Your task to perform on an android device: toggle notifications settings in the gmail app Image 0: 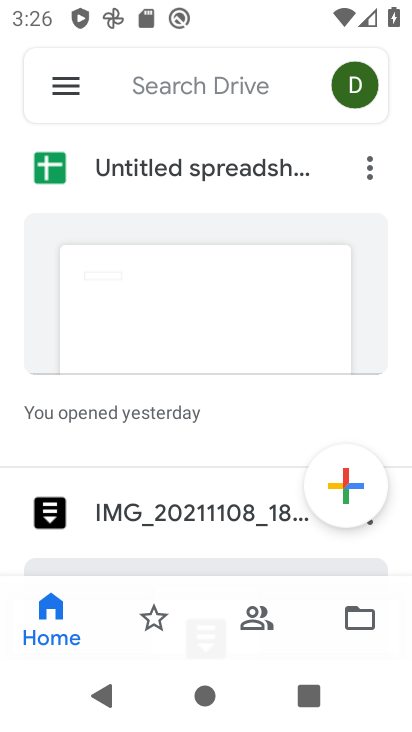
Step 0: press home button
Your task to perform on an android device: toggle notifications settings in the gmail app Image 1: 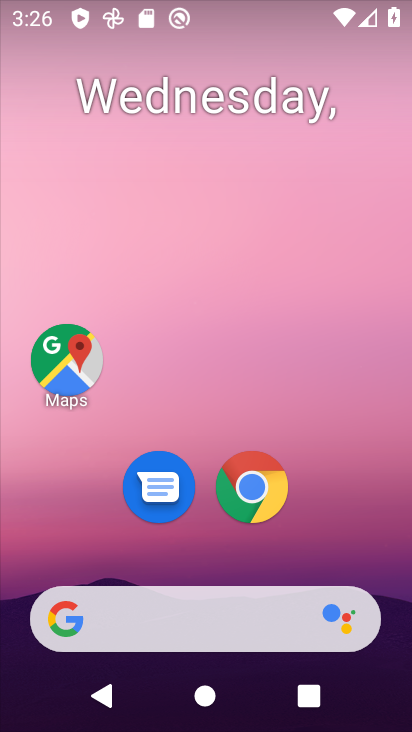
Step 1: drag from (338, 506) to (331, 148)
Your task to perform on an android device: toggle notifications settings in the gmail app Image 2: 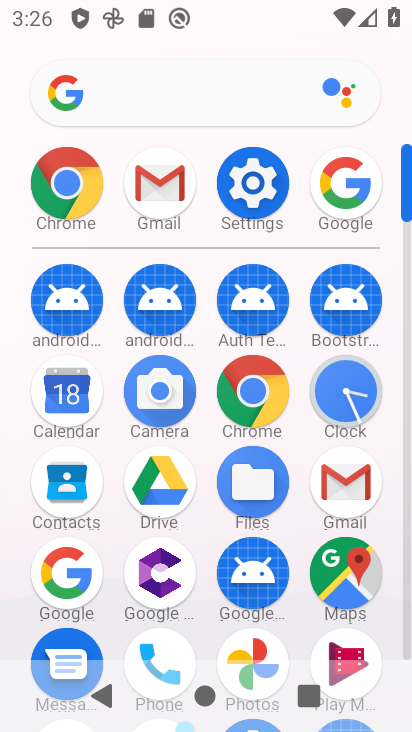
Step 2: click (365, 491)
Your task to perform on an android device: toggle notifications settings in the gmail app Image 3: 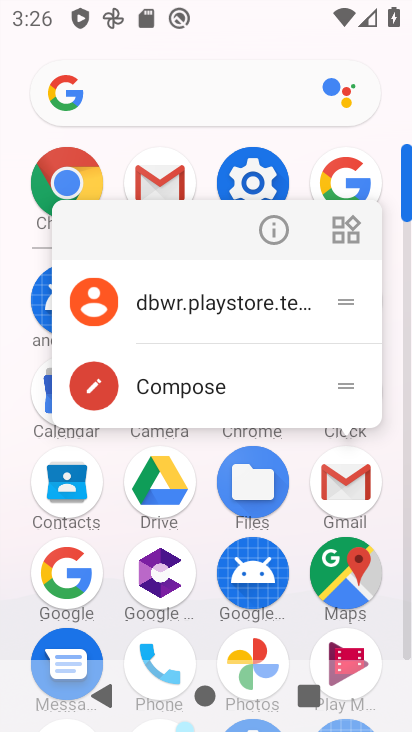
Step 3: click (365, 491)
Your task to perform on an android device: toggle notifications settings in the gmail app Image 4: 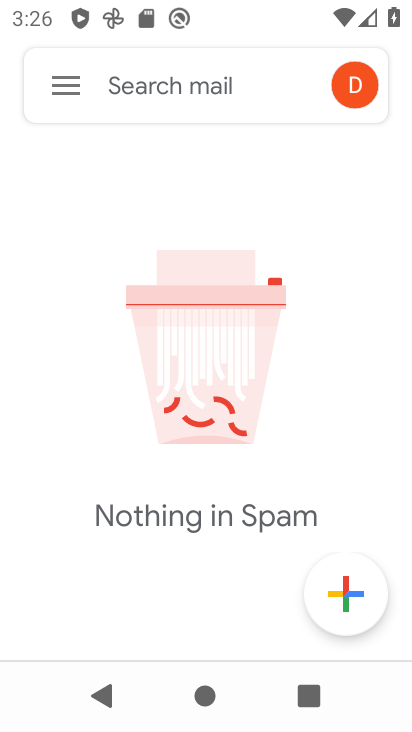
Step 4: click (57, 96)
Your task to perform on an android device: toggle notifications settings in the gmail app Image 5: 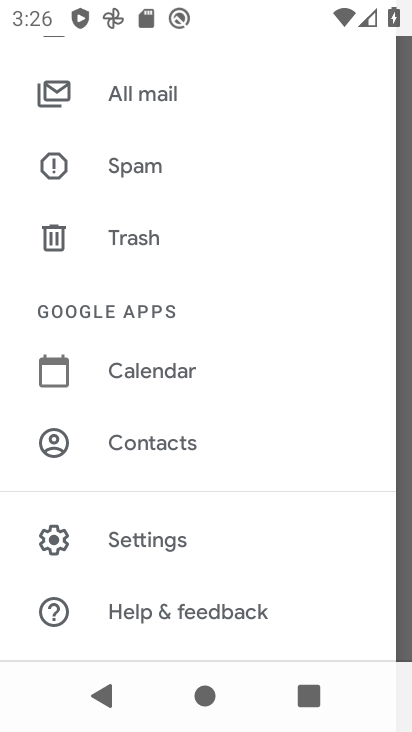
Step 5: drag from (298, 318) to (308, 386)
Your task to perform on an android device: toggle notifications settings in the gmail app Image 6: 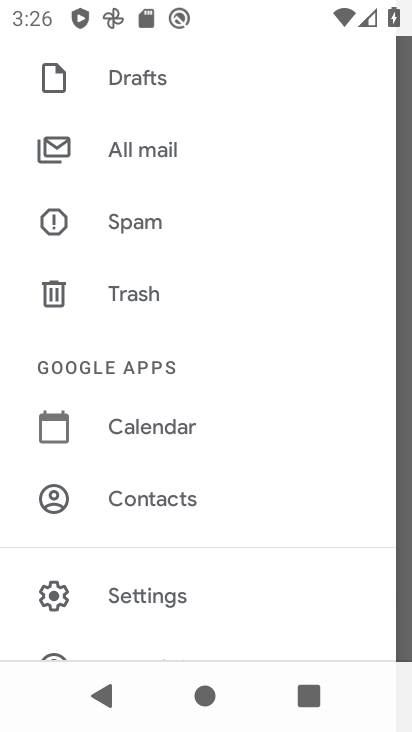
Step 6: drag from (311, 280) to (303, 372)
Your task to perform on an android device: toggle notifications settings in the gmail app Image 7: 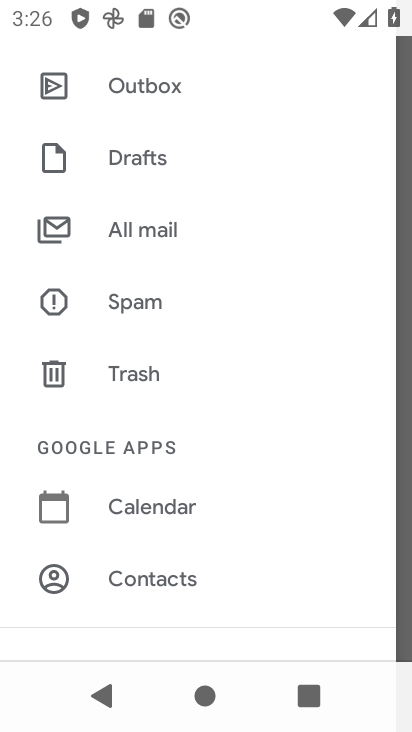
Step 7: drag from (303, 240) to (288, 324)
Your task to perform on an android device: toggle notifications settings in the gmail app Image 8: 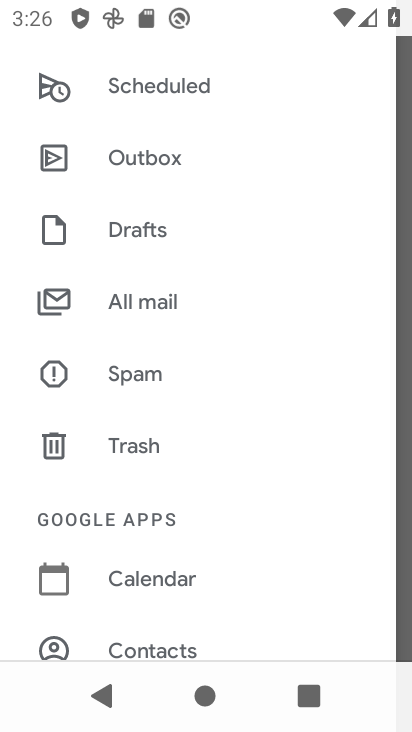
Step 8: drag from (288, 233) to (288, 320)
Your task to perform on an android device: toggle notifications settings in the gmail app Image 9: 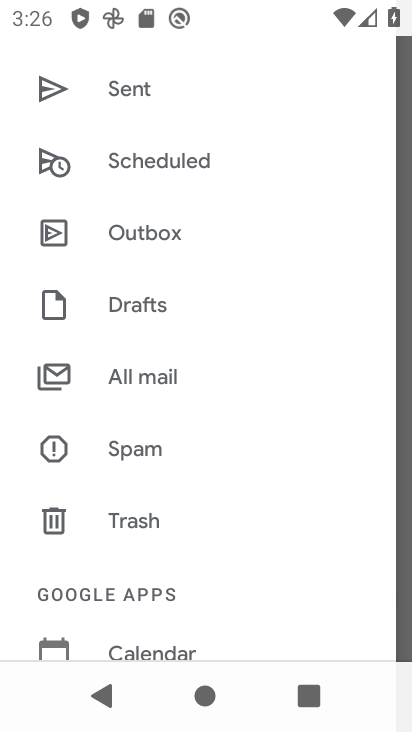
Step 9: drag from (294, 235) to (288, 313)
Your task to perform on an android device: toggle notifications settings in the gmail app Image 10: 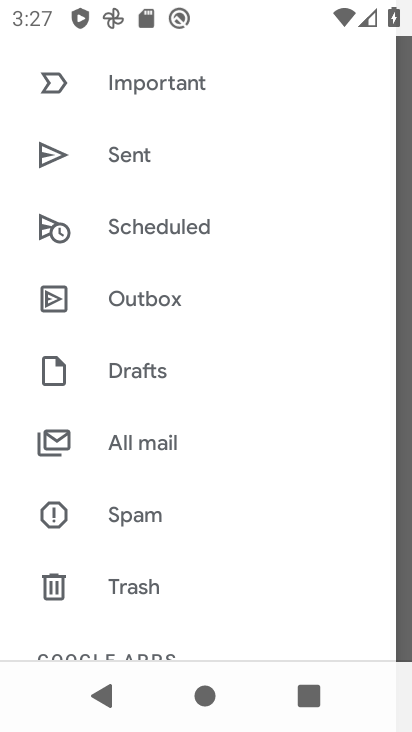
Step 10: drag from (297, 212) to (289, 304)
Your task to perform on an android device: toggle notifications settings in the gmail app Image 11: 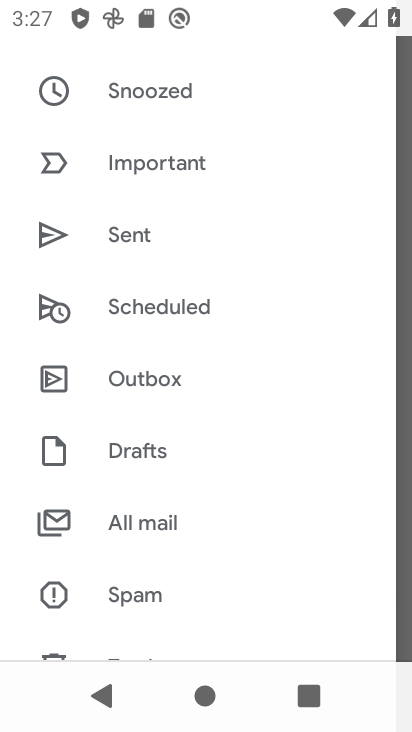
Step 11: drag from (294, 237) to (295, 311)
Your task to perform on an android device: toggle notifications settings in the gmail app Image 12: 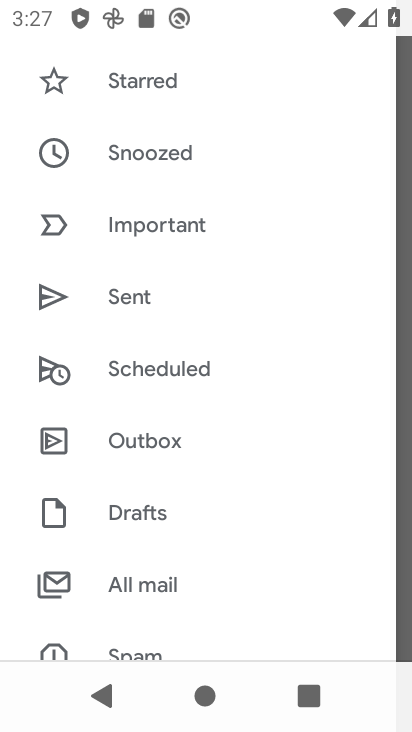
Step 12: drag from (296, 210) to (280, 310)
Your task to perform on an android device: toggle notifications settings in the gmail app Image 13: 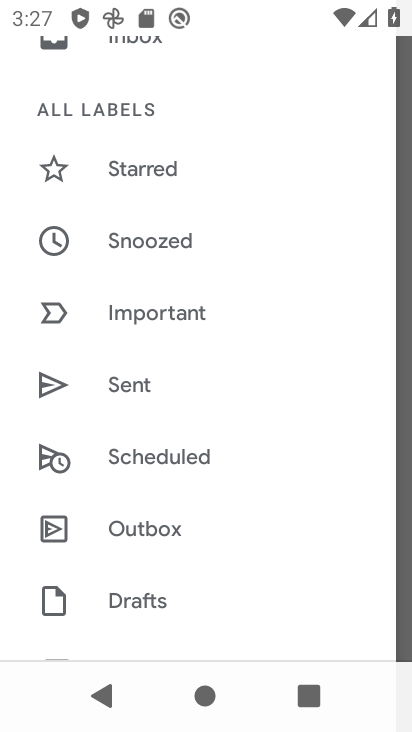
Step 13: drag from (285, 179) to (262, 302)
Your task to perform on an android device: toggle notifications settings in the gmail app Image 14: 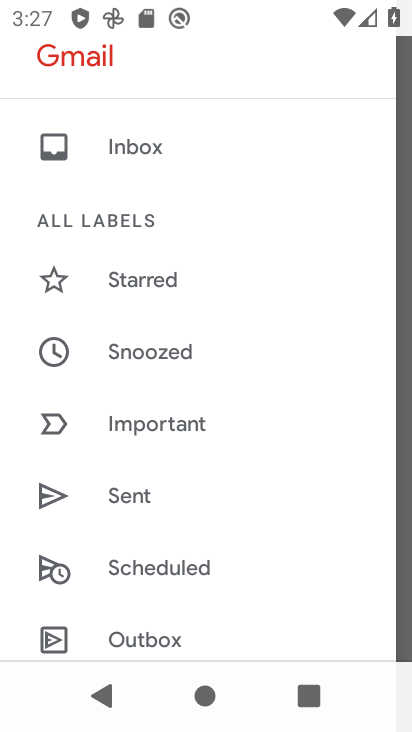
Step 14: drag from (274, 390) to (283, 295)
Your task to perform on an android device: toggle notifications settings in the gmail app Image 15: 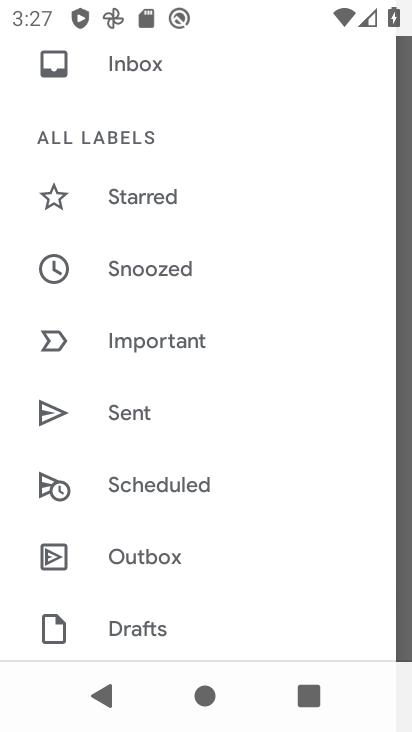
Step 15: drag from (275, 459) to (267, 349)
Your task to perform on an android device: toggle notifications settings in the gmail app Image 16: 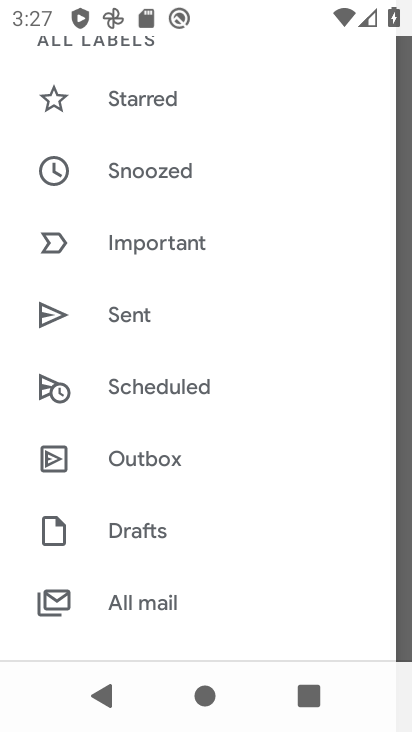
Step 16: drag from (262, 474) to (258, 384)
Your task to perform on an android device: toggle notifications settings in the gmail app Image 17: 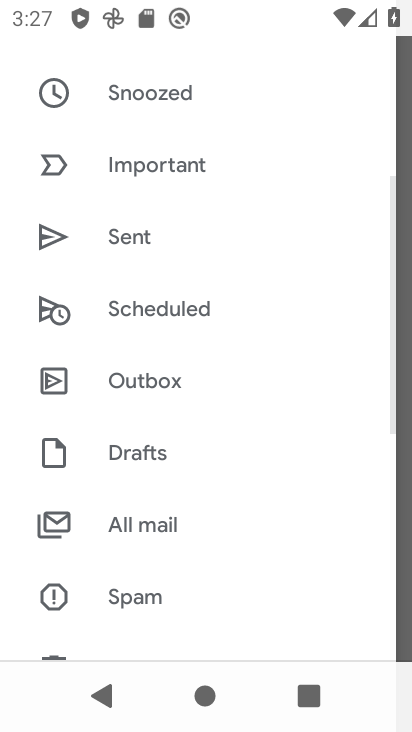
Step 17: drag from (258, 516) to (266, 411)
Your task to perform on an android device: toggle notifications settings in the gmail app Image 18: 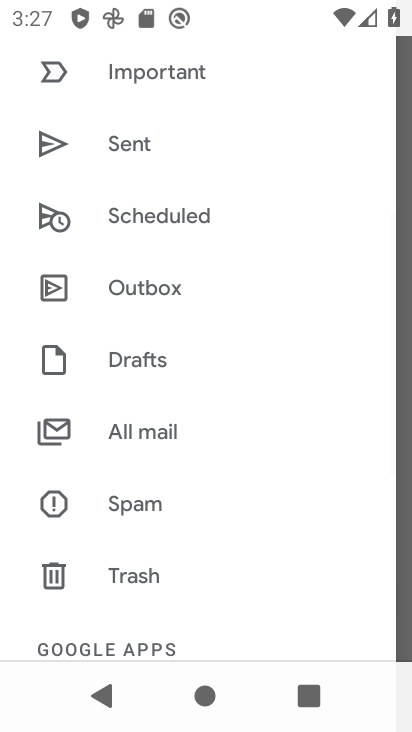
Step 18: drag from (249, 509) to (259, 426)
Your task to perform on an android device: toggle notifications settings in the gmail app Image 19: 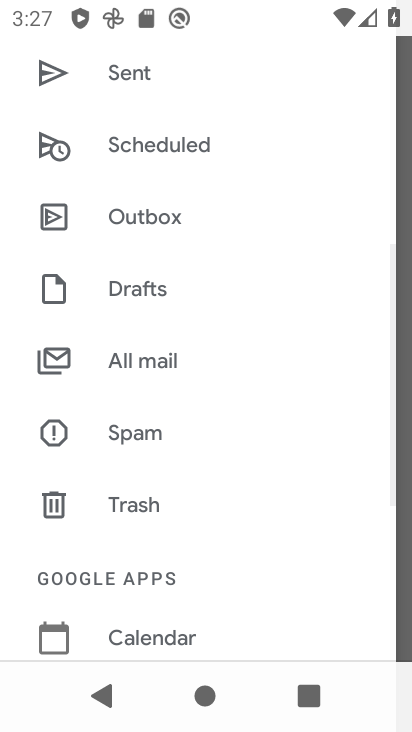
Step 19: drag from (240, 550) to (243, 484)
Your task to perform on an android device: toggle notifications settings in the gmail app Image 20: 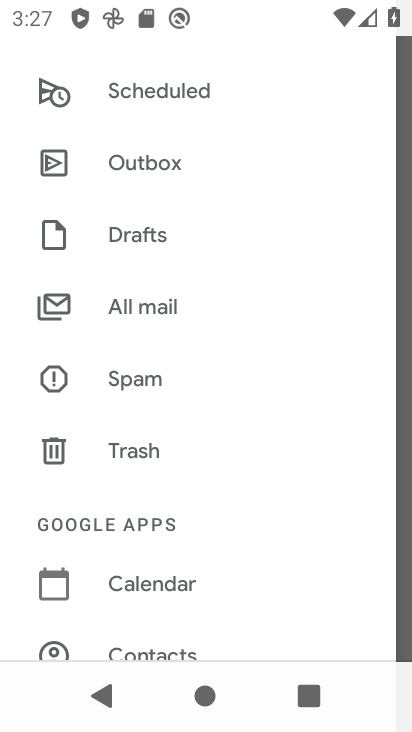
Step 20: drag from (238, 576) to (267, 424)
Your task to perform on an android device: toggle notifications settings in the gmail app Image 21: 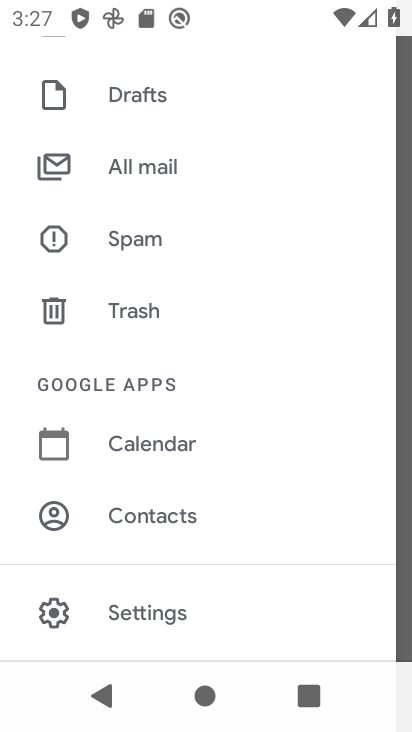
Step 21: drag from (247, 544) to (264, 457)
Your task to perform on an android device: toggle notifications settings in the gmail app Image 22: 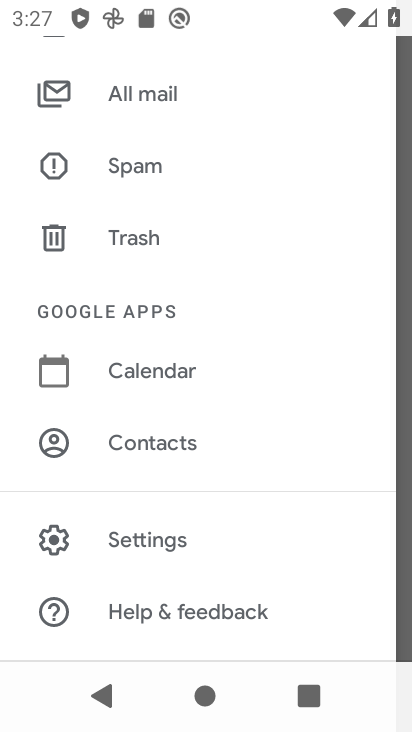
Step 22: click (186, 551)
Your task to perform on an android device: toggle notifications settings in the gmail app Image 23: 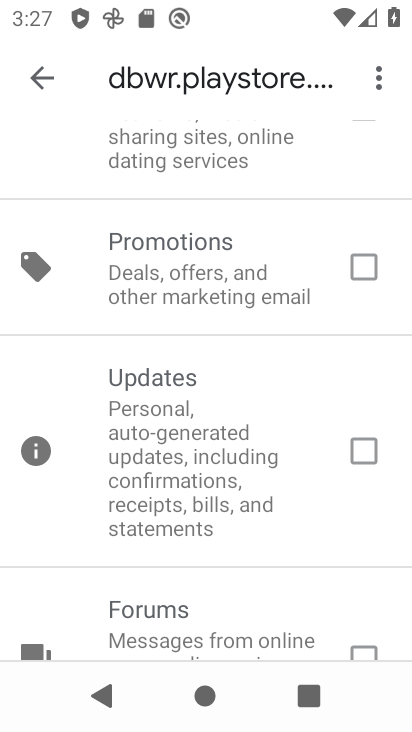
Step 23: drag from (265, 579) to (280, 521)
Your task to perform on an android device: toggle notifications settings in the gmail app Image 24: 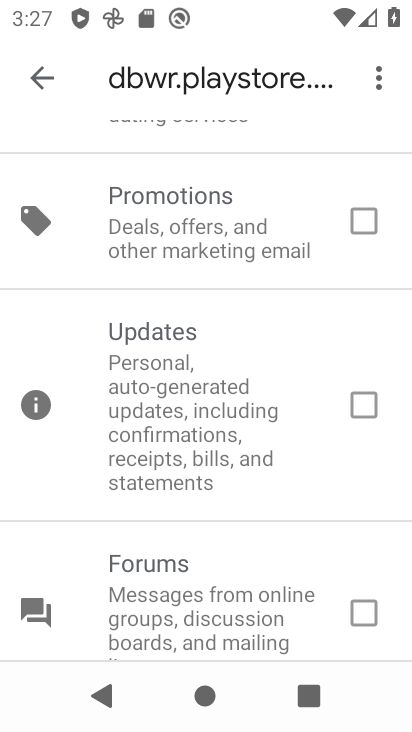
Step 24: click (47, 56)
Your task to perform on an android device: toggle notifications settings in the gmail app Image 25: 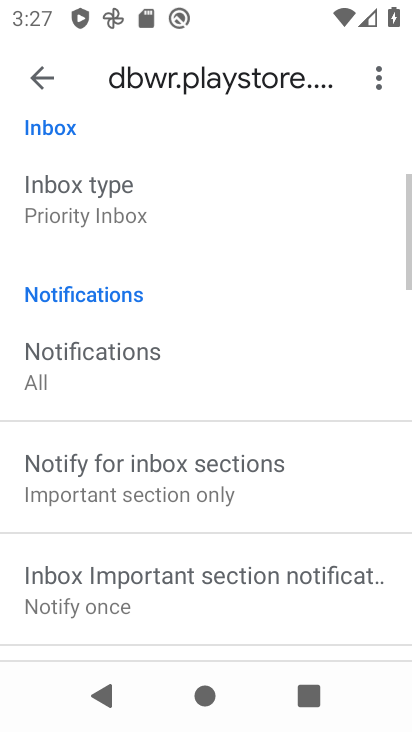
Step 25: drag from (209, 531) to (223, 427)
Your task to perform on an android device: toggle notifications settings in the gmail app Image 26: 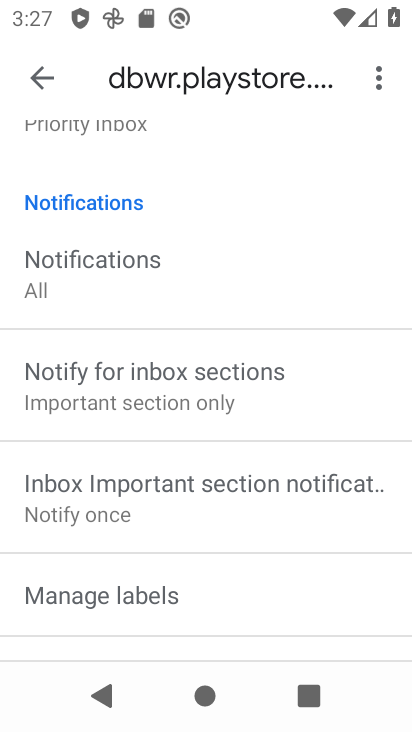
Step 26: drag from (208, 574) to (213, 449)
Your task to perform on an android device: toggle notifications settings in the gmail app Image 27: 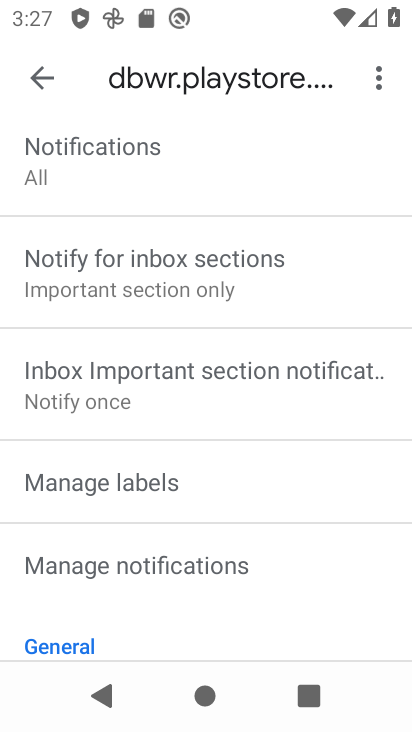
Step 27: drag from (195, 586) to (219, 459)
Your task to perform on an android device: toggle notifications settings in the gmail app Image 28: 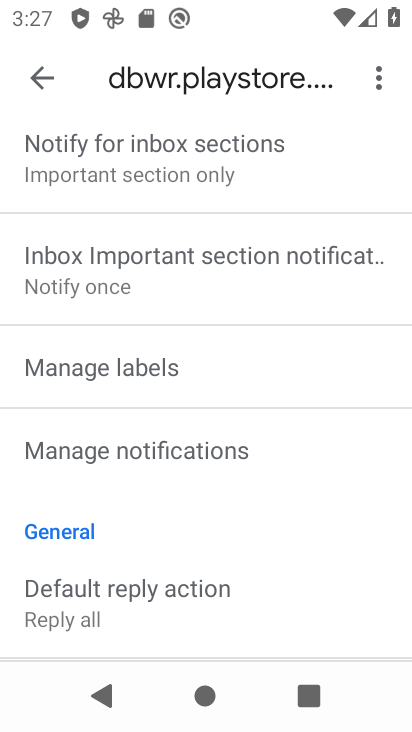
Step 28: click (210, 463)
Your task to perform on an android device: toggle notifications settings in the gmail app Image 29: 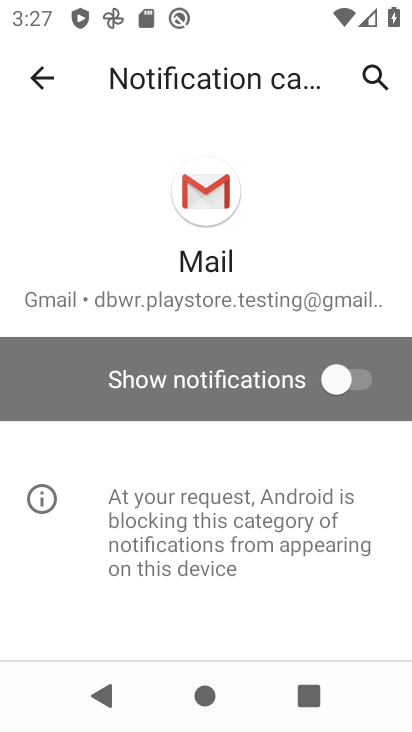
Step 29: click (320, 392)
Your task to perform on an android device: toggle notifications settings in the gmail app Image 30: 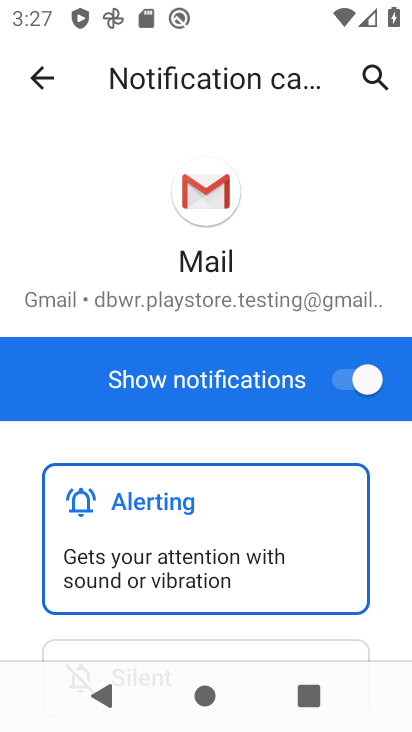
Step 30: task complete